Your task to perform on an android device: set the timer Image 0: 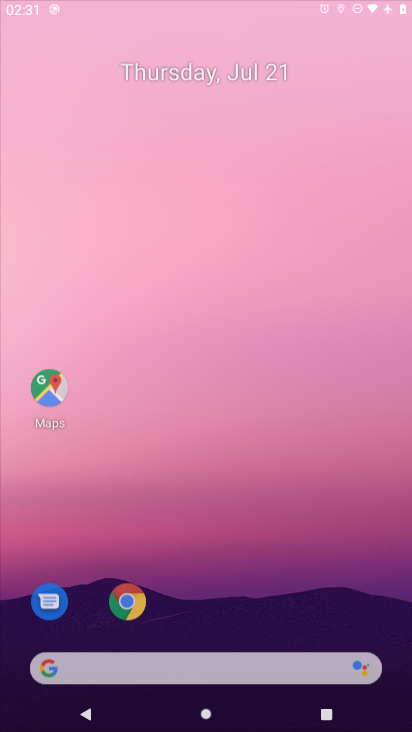
Step 0: press home button
Your task to perform on an android device: set the timer Image 1: 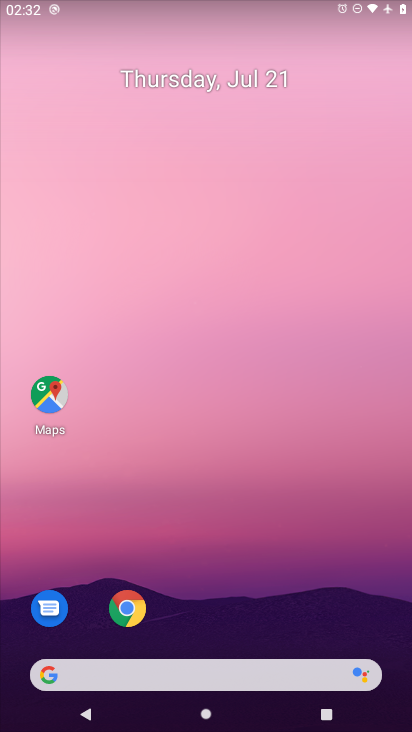
Step 1: drag from (199, 615) to (161, 7)
Your task to perform on an android device: set the timer Image 2: 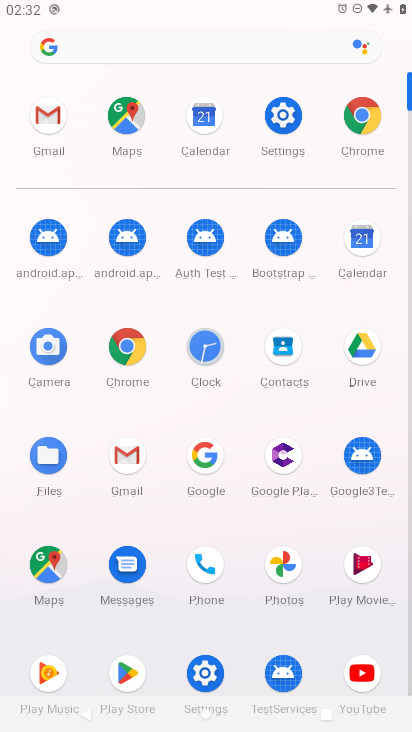
Step 2: click (215, 350)
Your task to perform on an android device: set the timer Image 3: 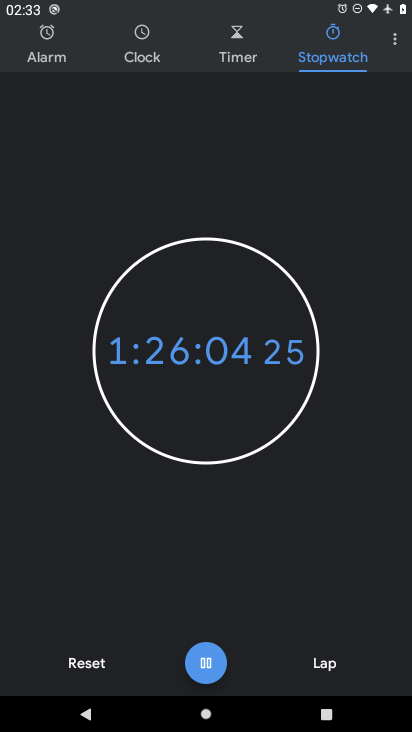
Step 3: click (238, 44)
Your task to perform on an android device: set the timer Image 4: 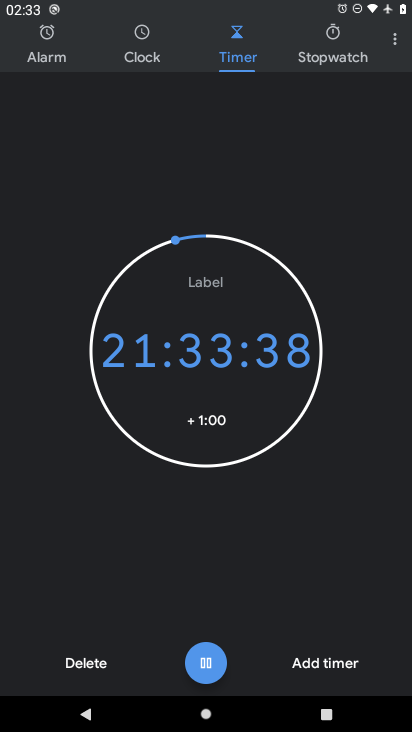
Step 4: task complete